Your task to perform on an android device: Open the map Image 0: 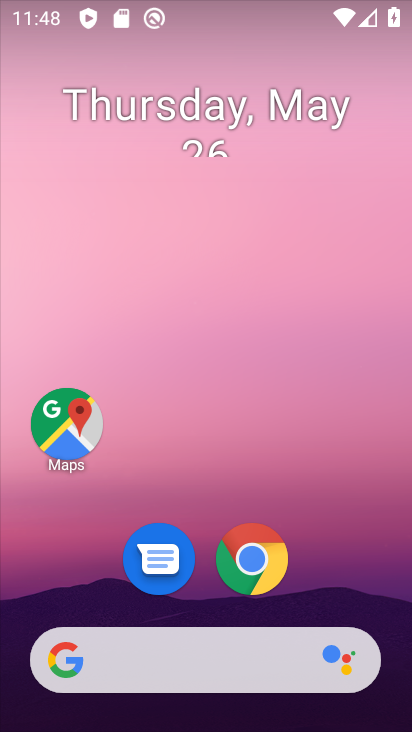
Step 0: click (53, 427)
Your task to perform on an android device: Open the map Image 1: 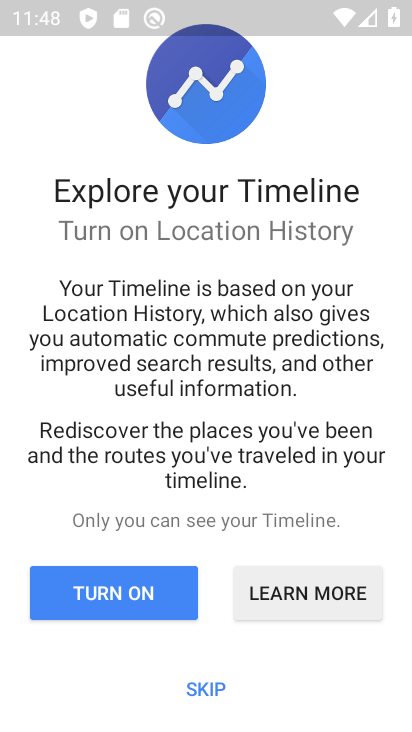
Step 1: task complete